Your task to perform on an android device: Go to Wikipedia Image 0: 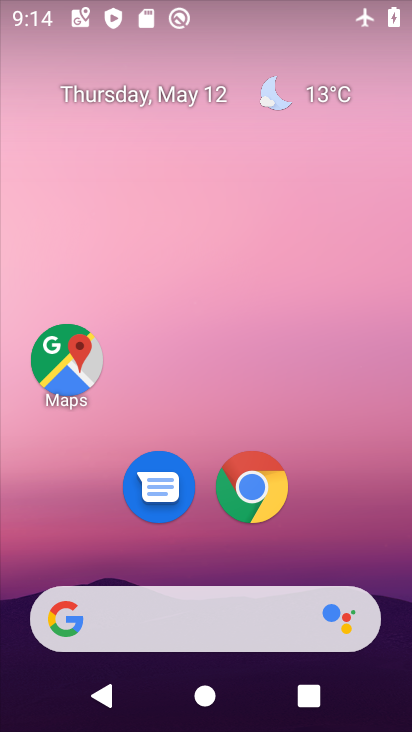
Step 0: click (248, 478)
Your task to perform on an android device: Go to Wikipedia Image 1: 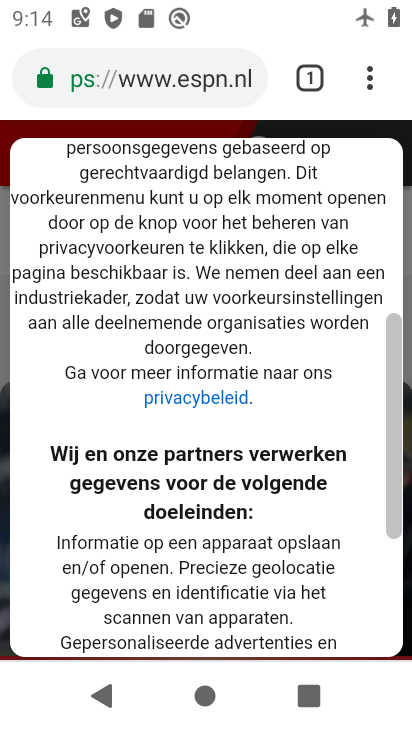
Step 1: click (298, 73)
Your task to perform on an android device: Go to Wikipedia Image 2: 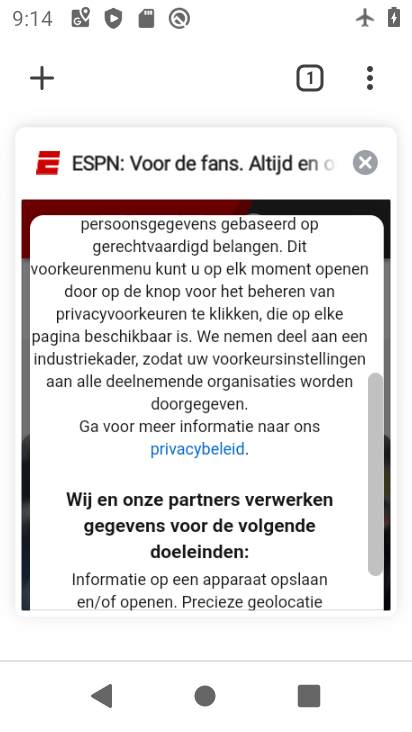
Step 2: click (53, 95)
Your task to perform on an android device: Go to Wikipedia Image 3: 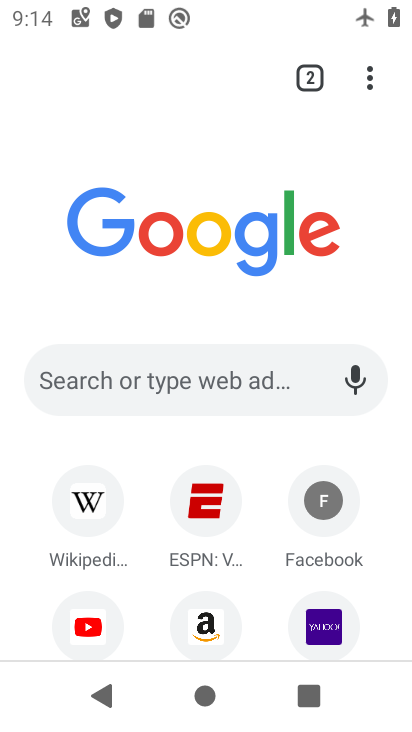
Step 3: click (107, 503)
Your task to perform on an android device: Go to Wikipedia Image 4: 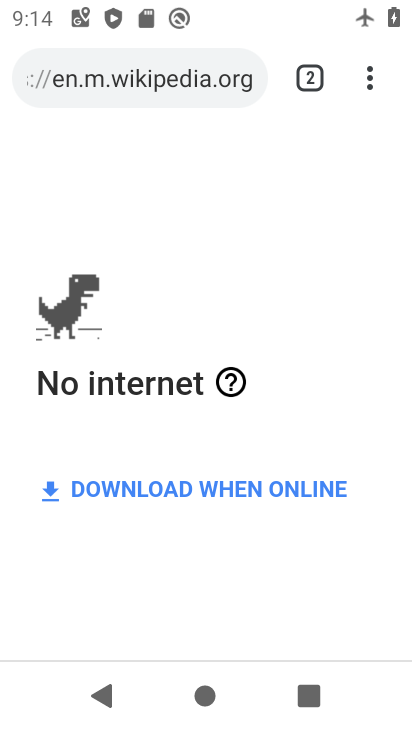
Step 4: drag from (263, 12) to (194, 713)
Your task to perform on an android device: Go to Wikipedia Image 5: 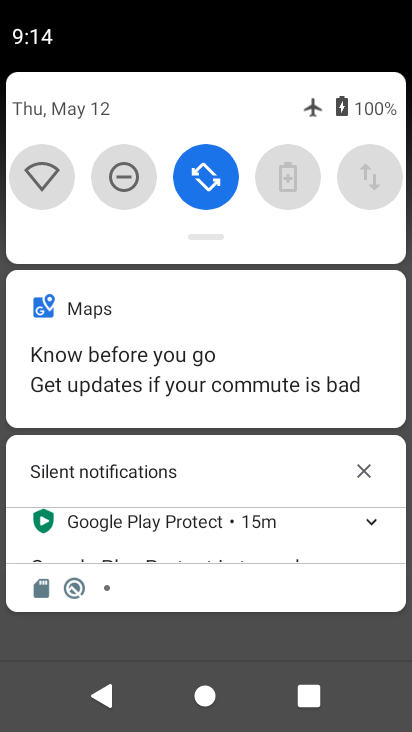
Step 5: drag from (257, 112) to (259, 689)
Your task to perform on an android device: Go to Wikipedia Image 6: 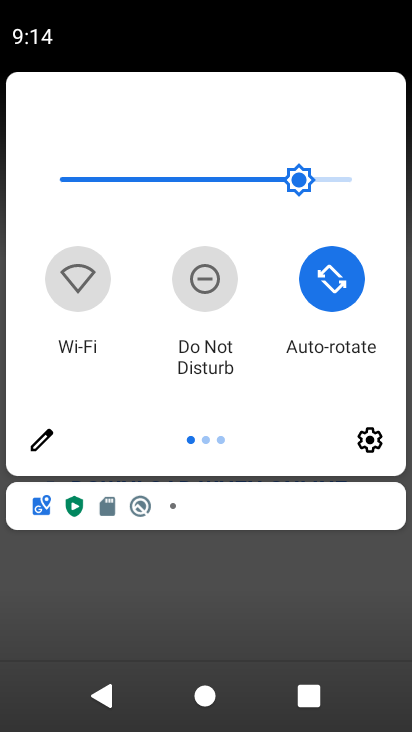
Step 6: drag from (391, 378) to (34, 375)
Your task to perform on an android device: Go to Wikipedia Image 7: 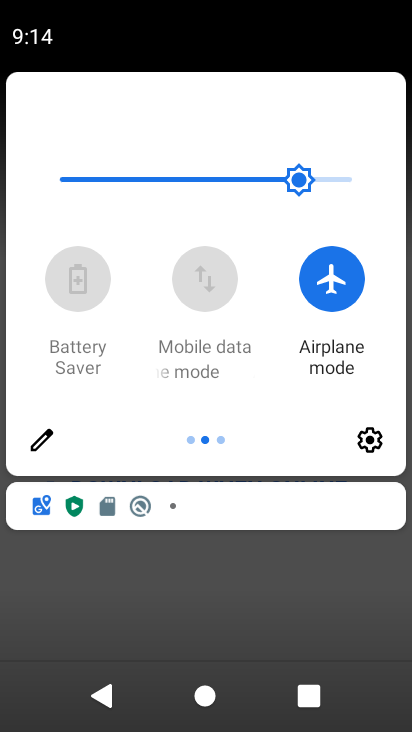
Step 7: click (344, 270)
Your task to perform on an android device: Go to Wikipedia Image 8: 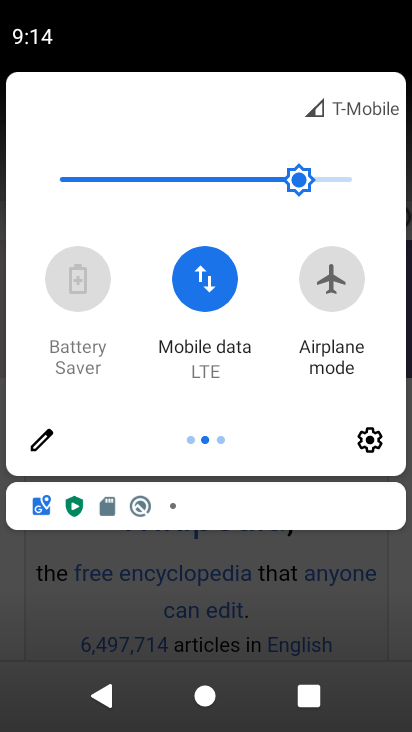
Step 8: task complete